Your task to perform on an android device: see tabs open on other devices in the chrome app Image 0: 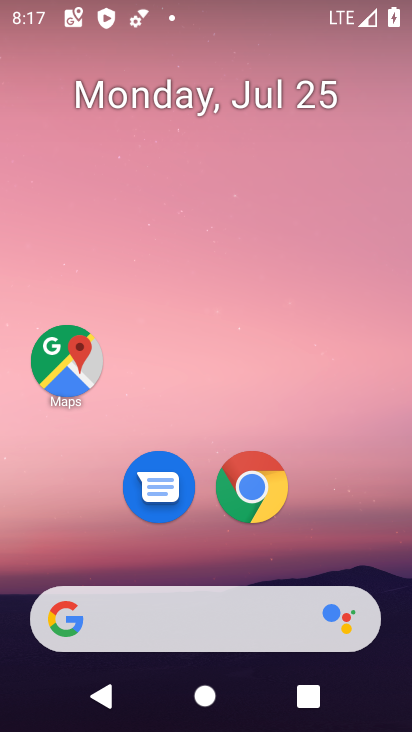
Step 0: click (239, 506)
Your task to perform on an android device: see tabs open on other devices in the chrome app Image 1: 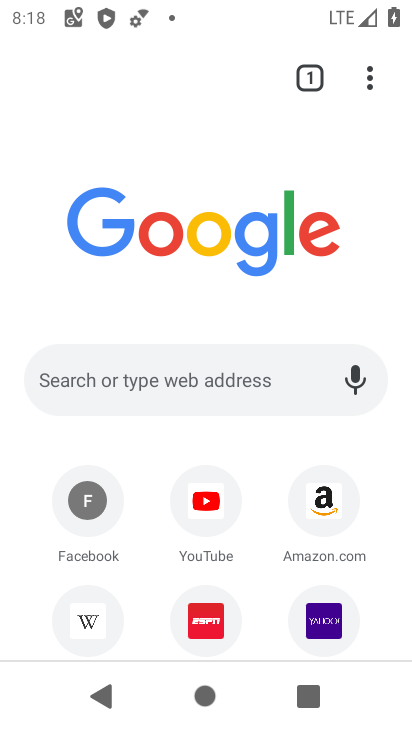
Step 1: task complete